Your task to perform on an android device: move an email to a new category in the gmail app Image 0: 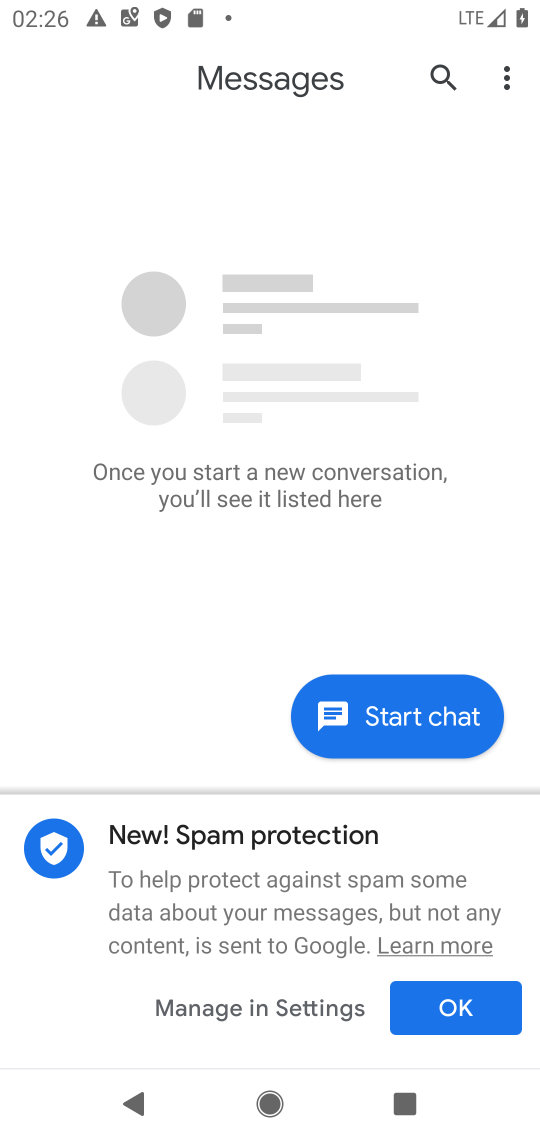
Step 0: press home button
Your task to perform on an android device: move an email to a new category in the gmail app Image 1: 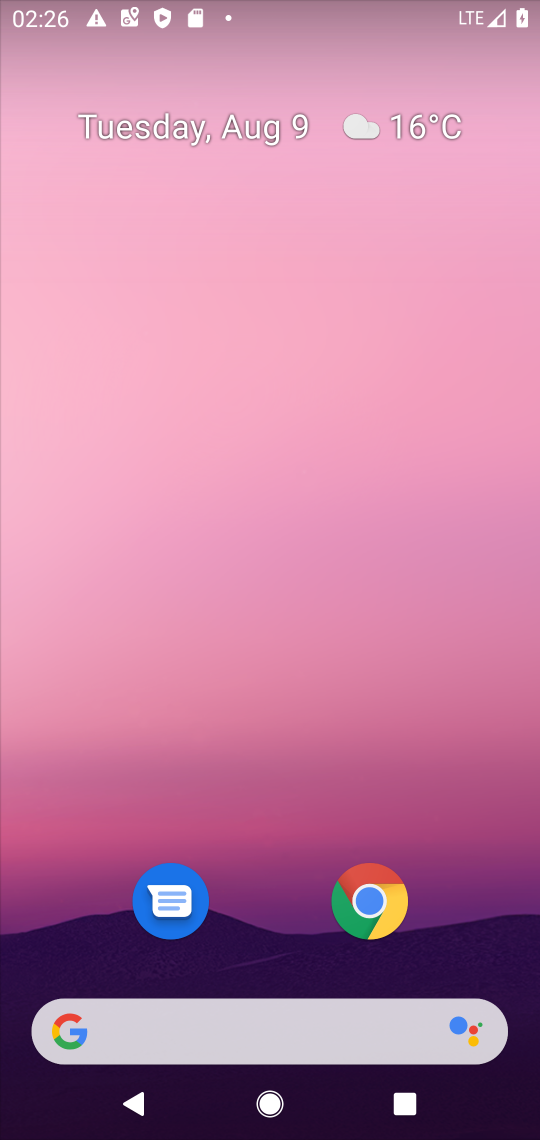
Step 1: drag from (515, 974) to (471, 215)
Your task to perform on an android device: move an email to a new category in the gmail app Image 2: 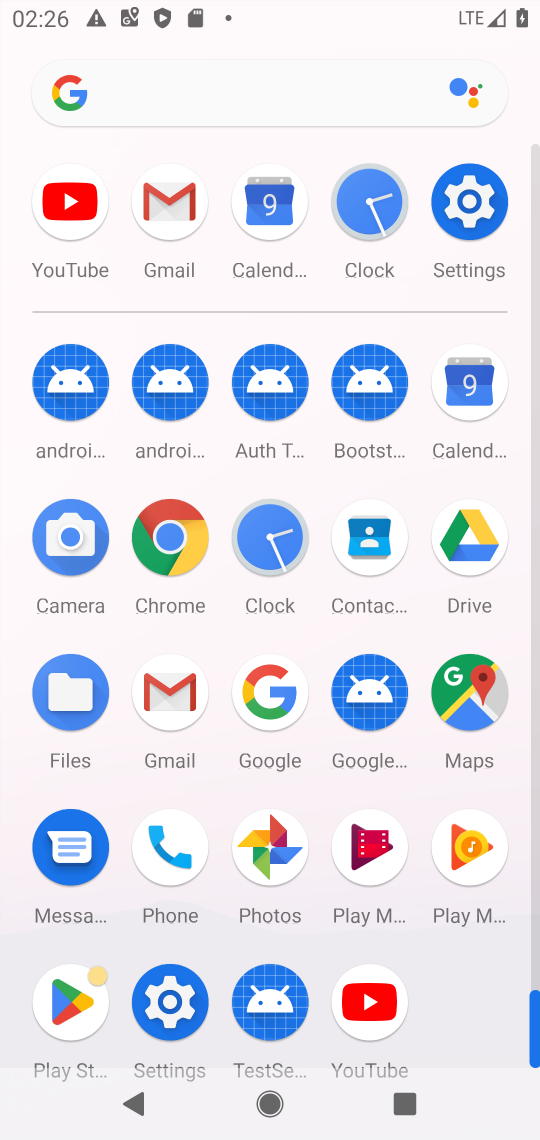
Step 2: click (171, 696)
Your task to perform on an android device: move an email to a new category in the gmail app Image 3: 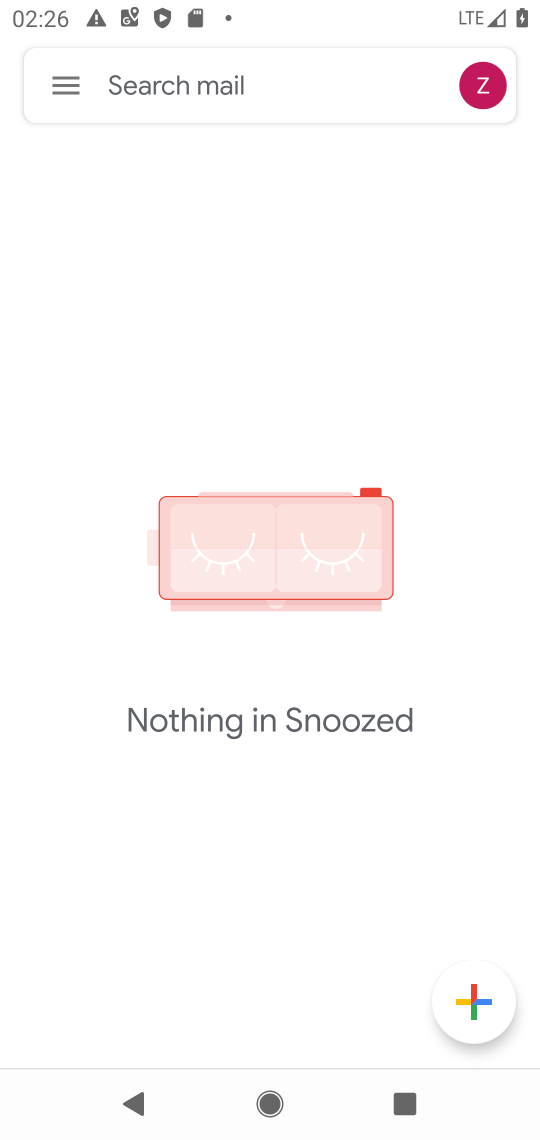
Step 3: click (65, 100)
Your task to perform on an android device: move an email to a new category in the gmail app Image 4: 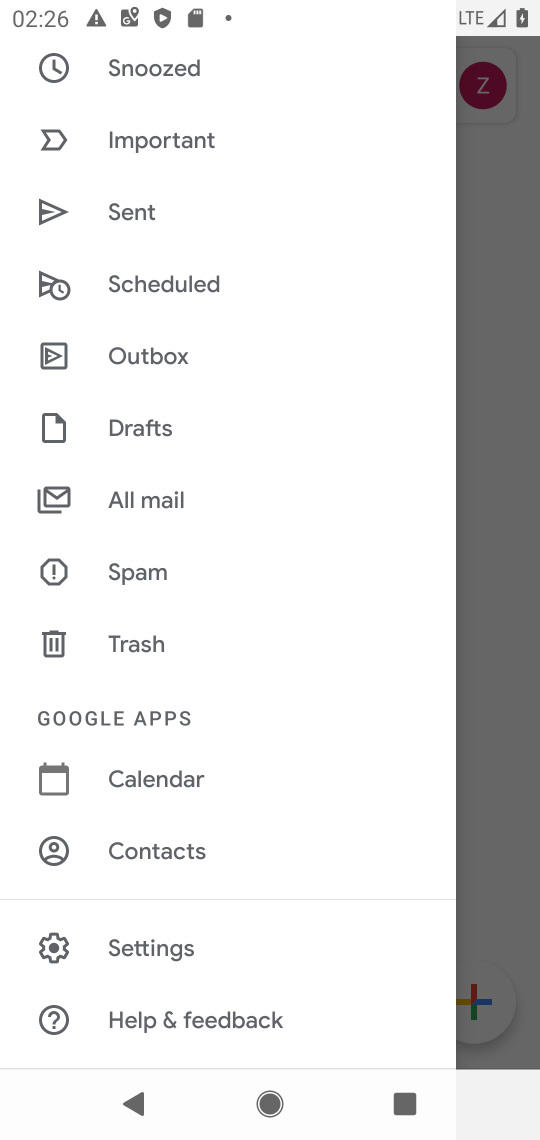
Step 4: click (155, 498)
Your task to perform on an android device: move an email to a new category in the gmail app Image 5: 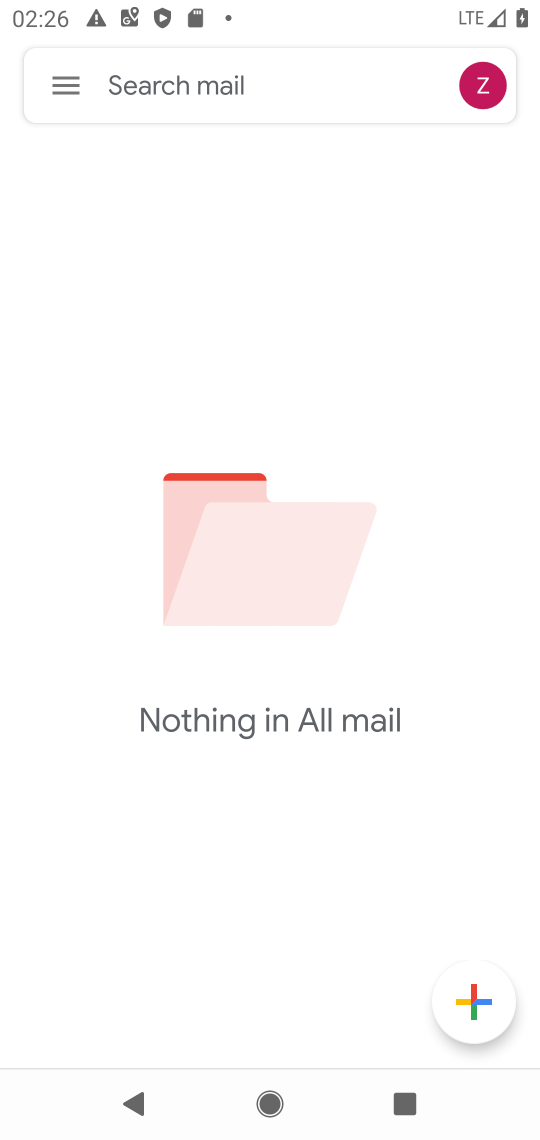
Step 5: task complete